Your task to perform on an android device: Open Maps and search for coffee Image 0: 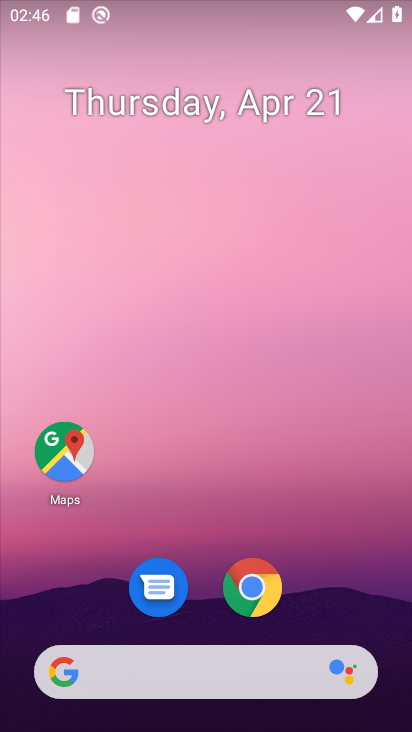
Step 0: drag from (369, 579) to (358, 99)
Your task to perform on an android device: Open Maps and search for coffee Image 1: 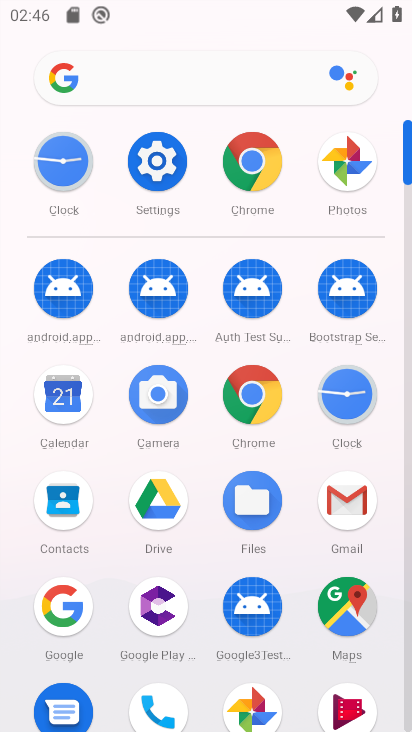
Step 1: drag from (194, 658) to (199, 278)
Your task to perform on an android device: Open Maps and search for coffee Image 2: 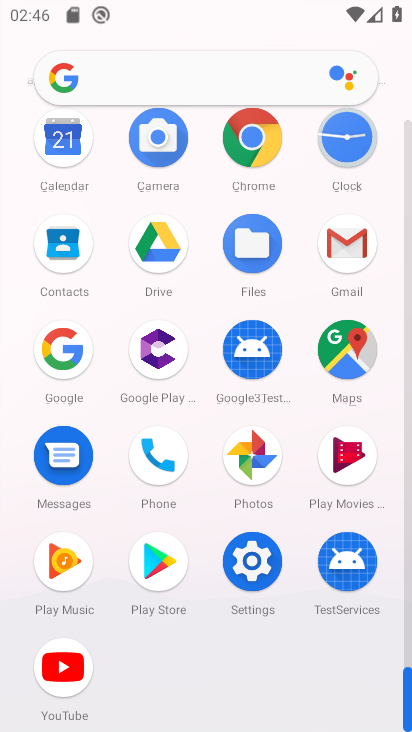
Step 2: click (339, 363)
Your task to perform on an android device: Open Maps and search for coffee Image 3: 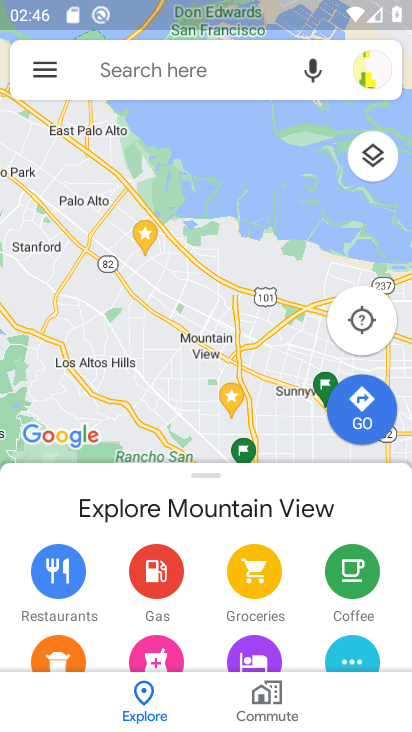
Step 3: click (205, 73)
Your task to perform on an android device: Open Maps and search for coffee Image 4: 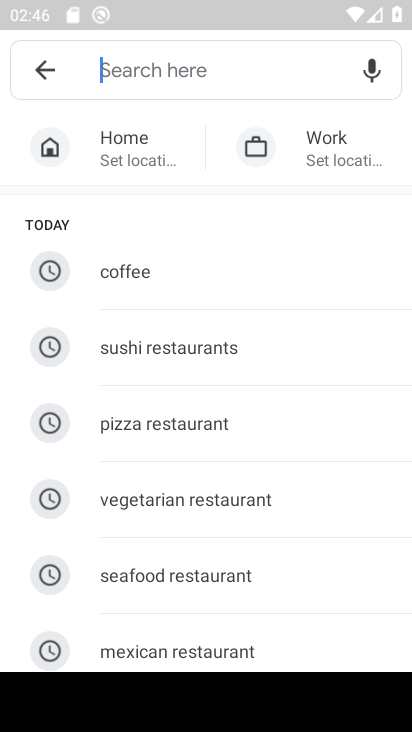
Step 4: type "coffee"
Your task to perform on an android device: Open Maps and search for coffee Image 5: 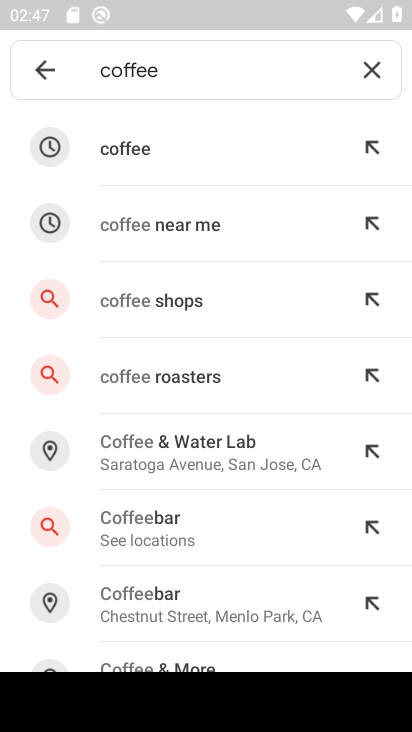
Step 5: click (259, 170)
Your task to perform on an android device: Open Maps and search for coffee Image 6: 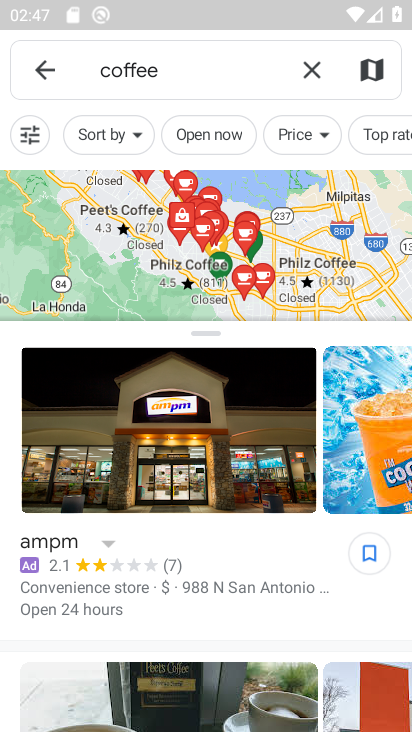
Step 6: task complete